Your task to perform on an android device: Go to privacy settings Image 0: 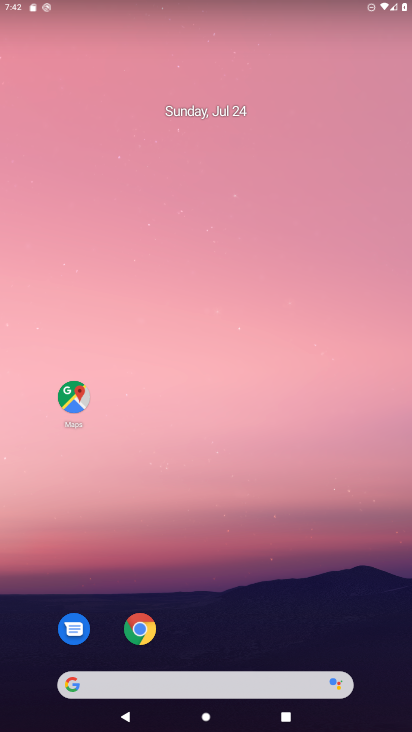
Step 0: drag from (358, 600) to (197, 8)
Your task to perform on an android device: Go to privacy settings Image 1: 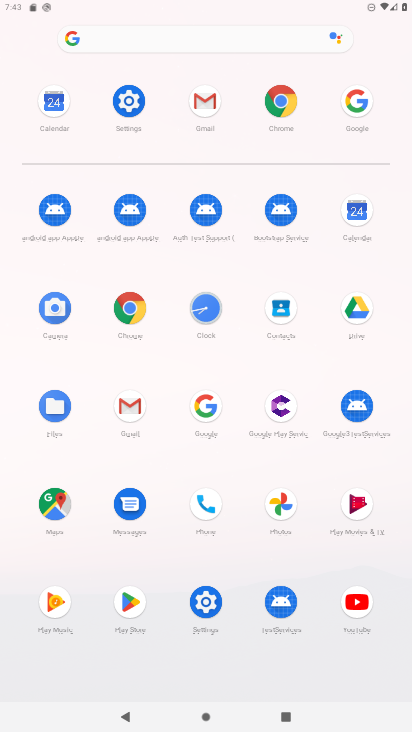
Step 1: click (218, 626)
Your task to perform on an android device: Go to privacy settings Image 2: 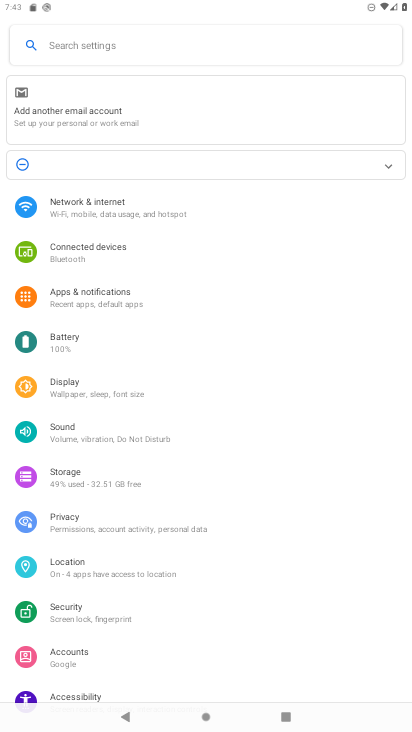
Step 2: click (85, 534)
Your task to perform on an android device: Go to privacy settings Image 3: 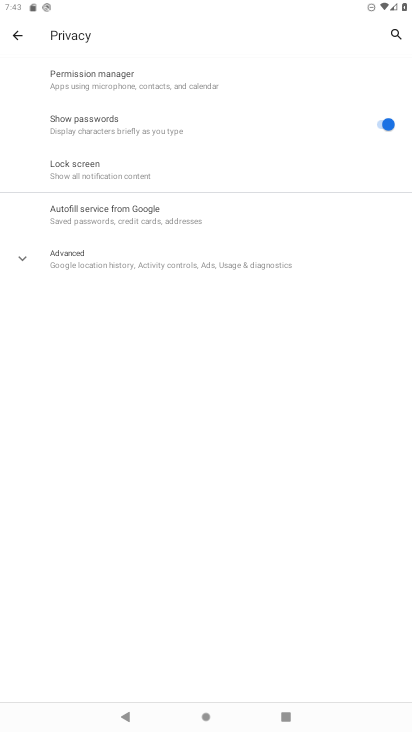
Step 3: task complete